Your task to perform on an android device: toggle location history Image 0: 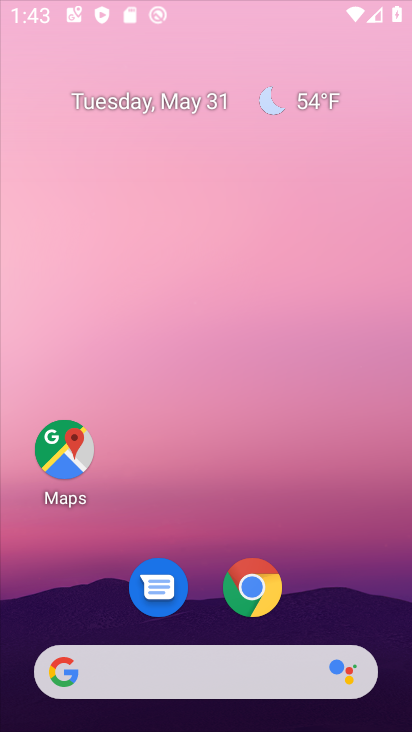
Step 0: drag from (205, 580) to (254, 288)
Your task to perform on an android device: toggle location history Image 1: 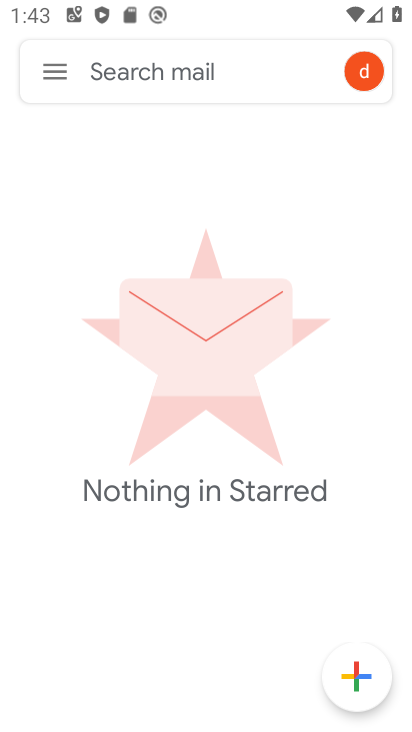
Step 1: press home button
Your task to perform on an android device: toggle location history Image 2: 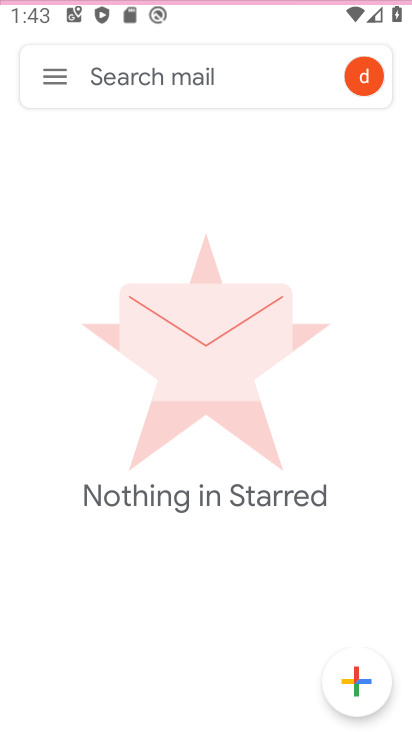
Step 2: drag from (170, 637) to (240, 151)
Your task to perform on an android device: toggle location history Image 3: 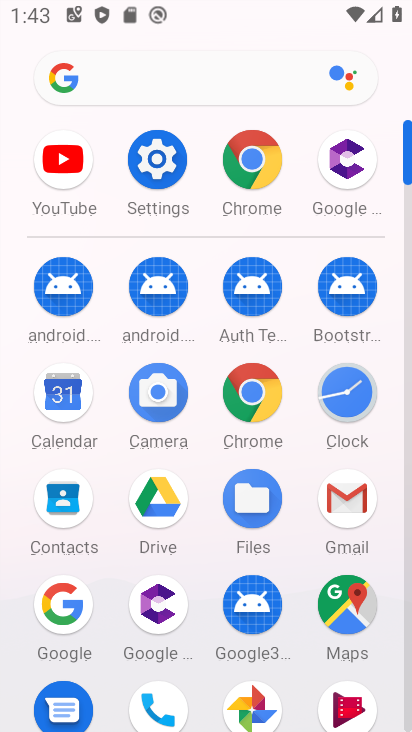
Step 3: click (165, 169)
Your task to perform on an android device: toggle location history Image 4: 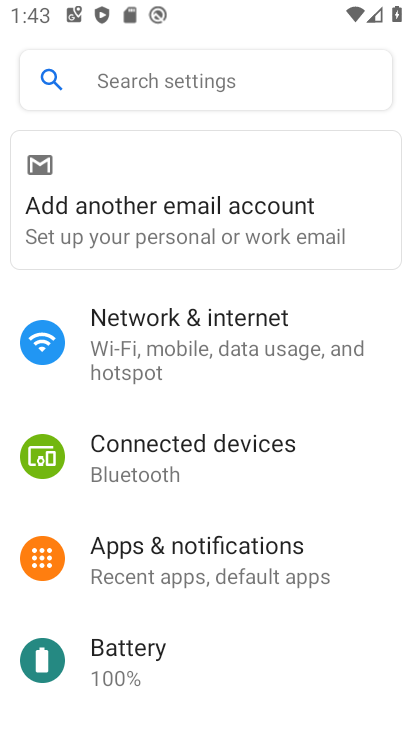
Step 4: drag from (219, 653) to (302, 243)
Your task to perform on an android device: toggle location history Image 5: 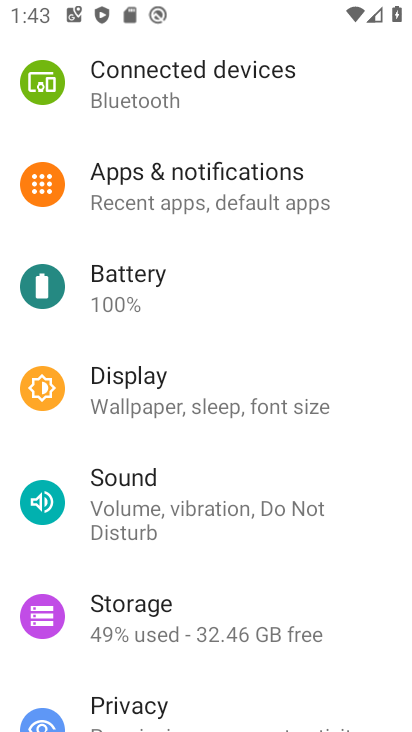
Step 5: drag from (186, 636) to (265, 249)
Your task to perform on an android device: toggle location history Image 6: 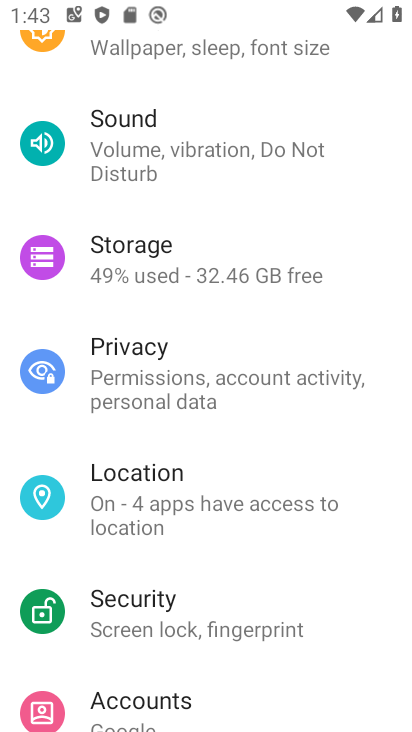
Step 6: click (149, 469)
Your task to perform on an android device: toggle location history Image 7: 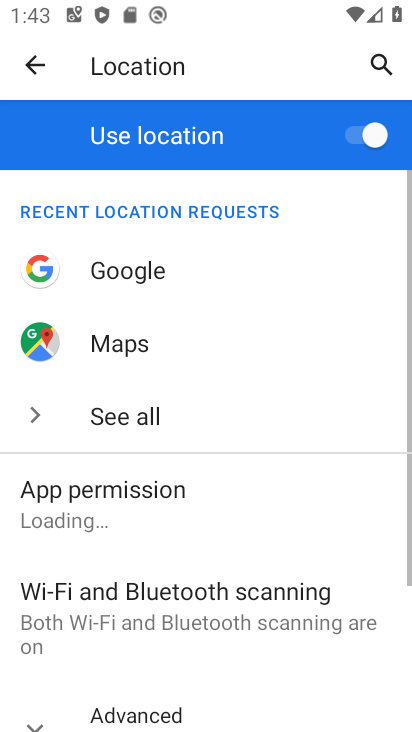
Step 7: drag from (260, 560) to (303, 171)
Your task to perform on an android device: toggle location history Image 8: 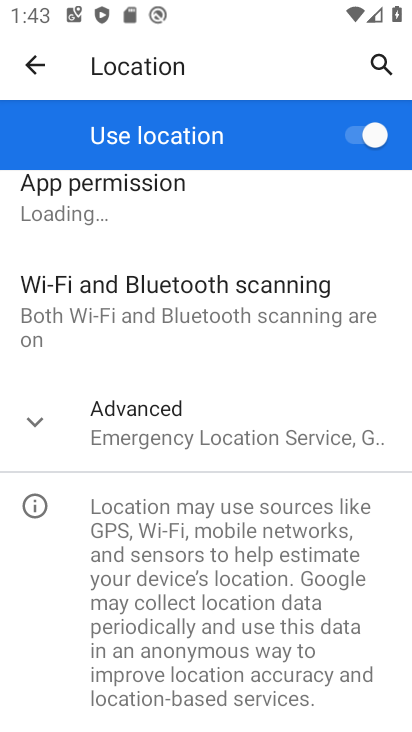
Step 8: click (89, 423)
Your task to perform on an android device: toggle location history Image 9: 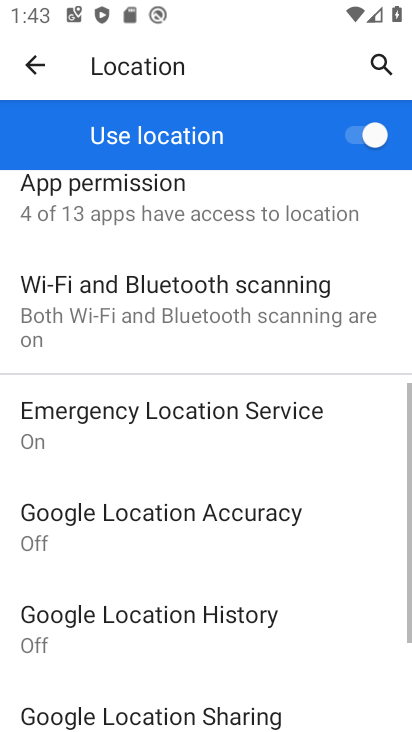
Step 9: click (144, 631)
Your task to perform on an android device: toggle location history Image 10: 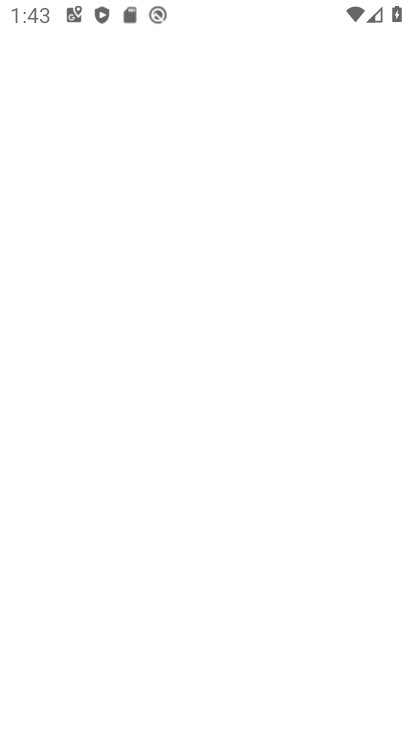
Step 10: drag from (150, 611) to (306, 92)
Your task to perform on an android device: toggle location history Image 11: 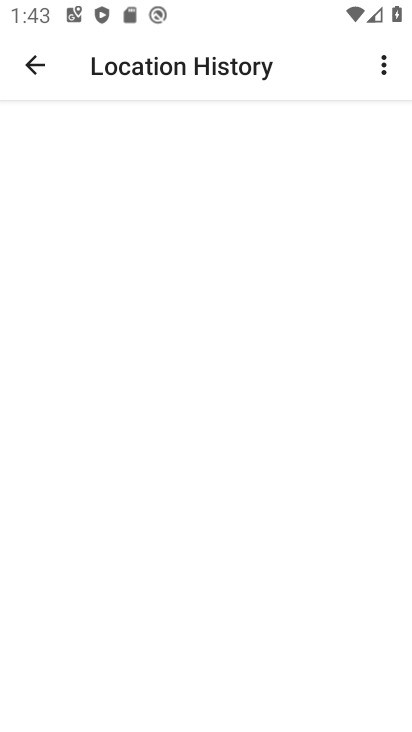
Step 11: drag from (226, 541) to (229, 166)
Your task to perform on an android device: toggle location history Image 12: 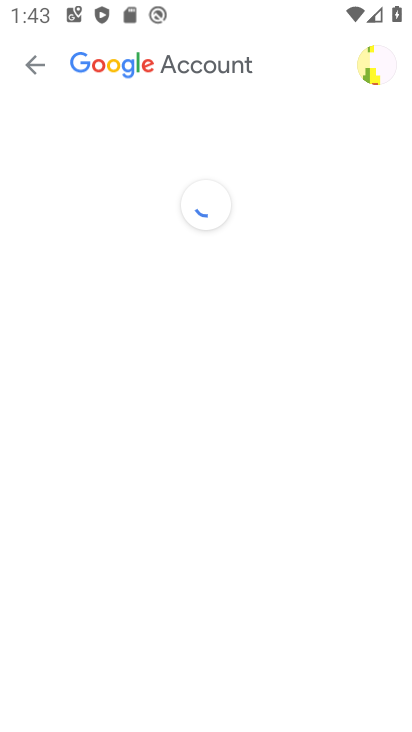
Step 12: drag from (251, 724) to (321, 231)
Your task to perform on an android device: toggle location history Image 13: 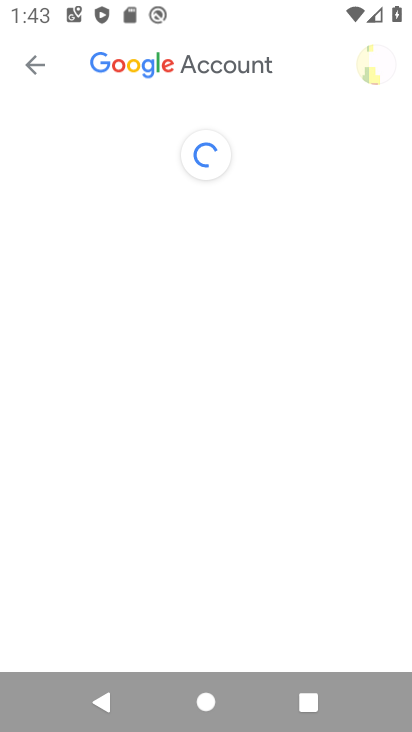
Step 13: drag from (230, 507) to (297, 106)
Your task to perform on an android device: toggle location history Image 14: 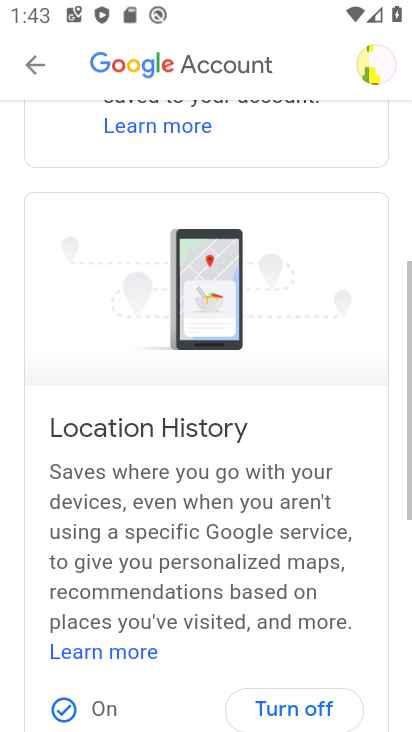
Step 14: drag from (233, 587) to (361, 190)
Your task to perform on an android device: toggle location history Image 15: 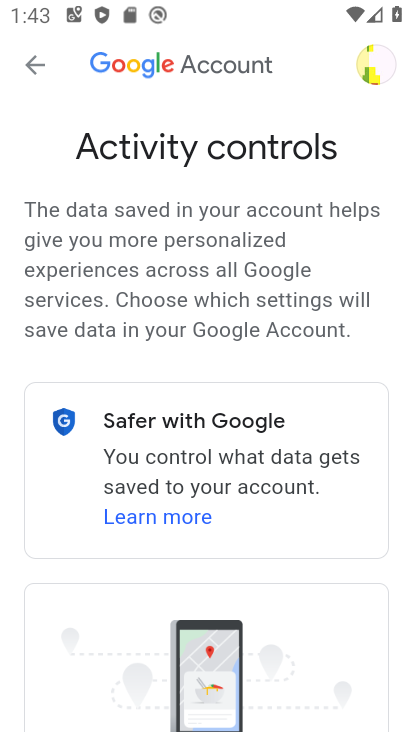
Step 15: drag from (205, 539) to (304, 135)
Your task to perform on an android device: toggle location history Image 16: 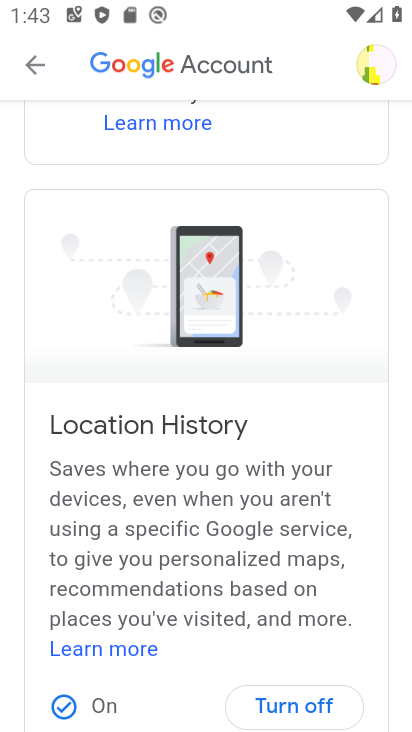
Step 16: drag from (210, 630) to (297, 180)
Your task to perform on an android device: toggle location history Image 17: 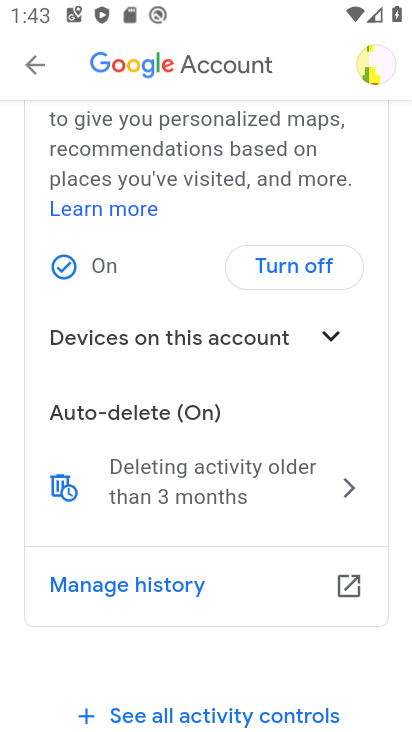
Step 17: click (305, 267)
Your task to perform on an android device: toggle location history Image 18: 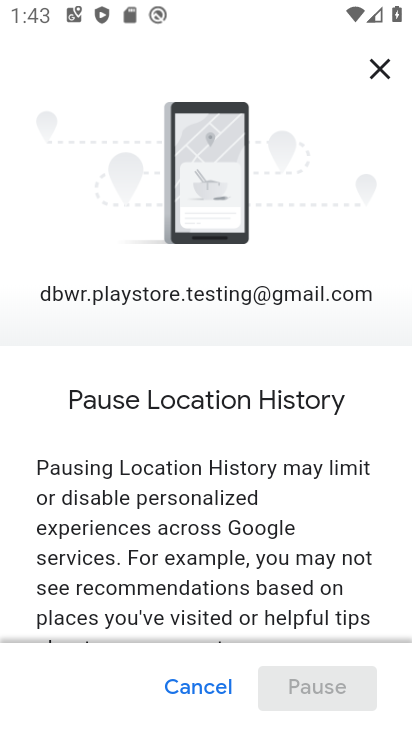
Step 18: drag from (273, 509) to (334, 88)
Your task to perform on an android device: toggle location history Image 19: 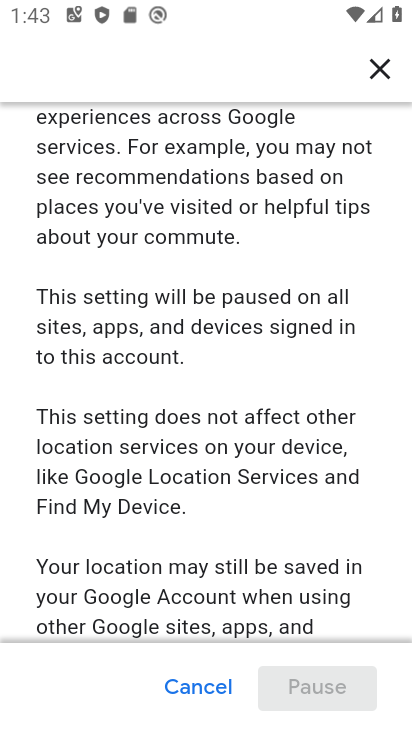
Step 19: drag from (240, 532) to (317, 40)
Your task to perform on an android device: toggle location history Image 20: 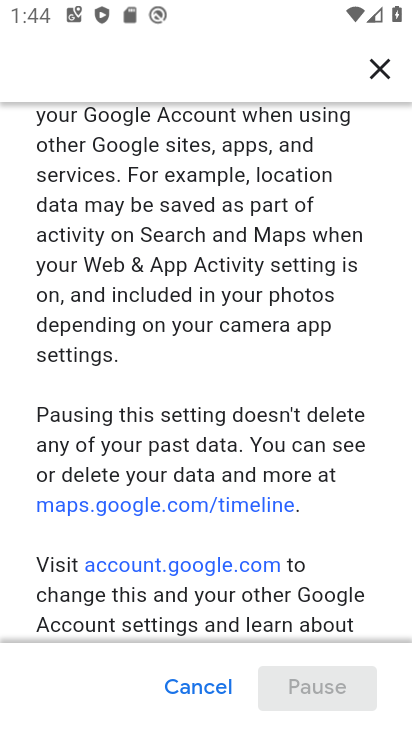
Step 20: drag from (217, 603) to (250, 192)
Your task to perform on an android device: toggle location history Image 21: 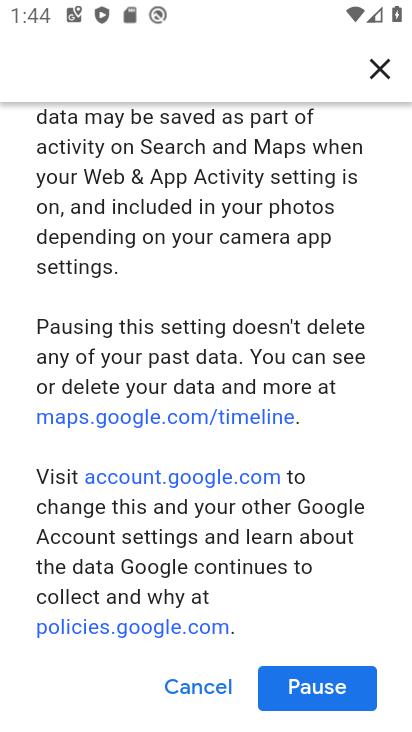
Step 21: click (285, 701)
Your task to perform on an android device: toggle location history Image 22: 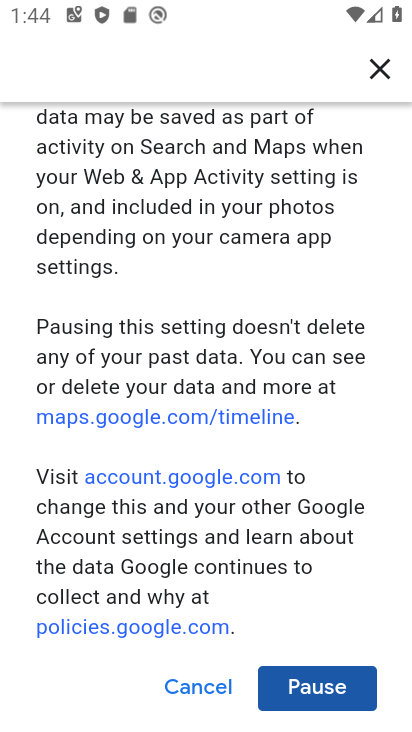
Step 22: task complete